Your task to perform on an android device: turn pop-ups off in chrome Image 0: 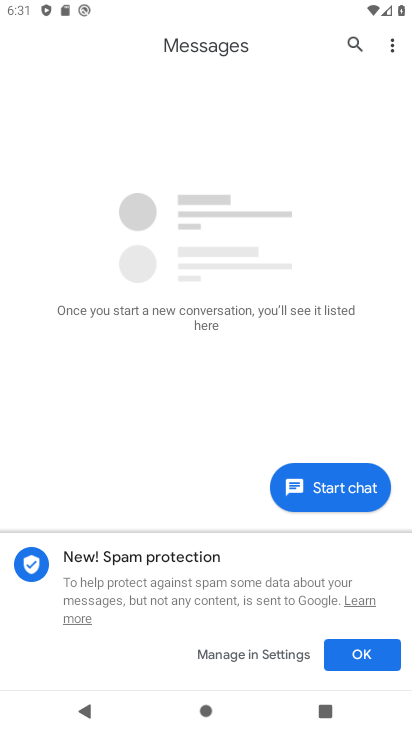
Step 0: press home button
Your task to perform on an android device: turn pop-ups off in chrome Image 1: 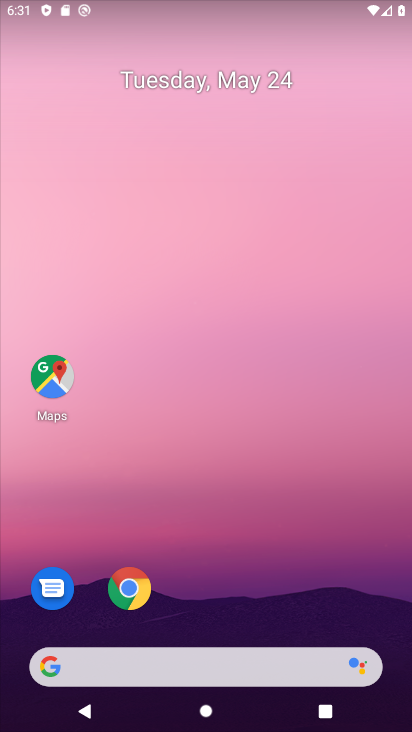
Step 1: drag from (198, 654) to (286, 3)
Your task to perform on an android device: turn pop-ups off in chrome Image 2: 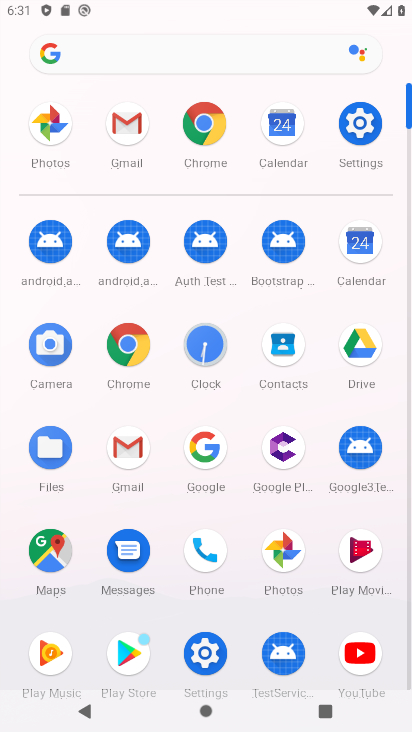
Step 2: click (134, 343)
Your task to perform on an android device: turn pop-ups off in chrome Image 3: 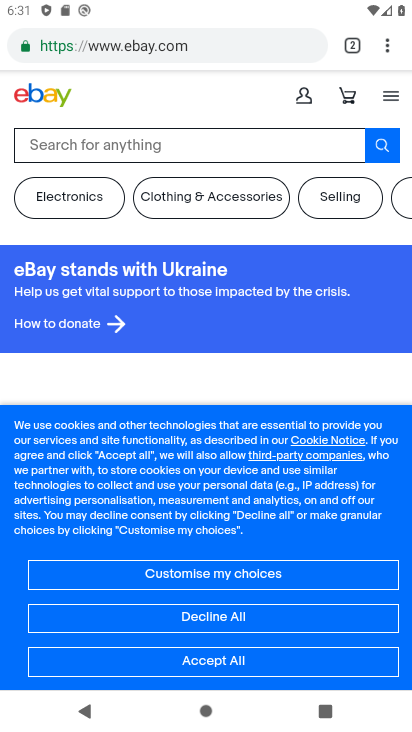
Step 3: drag from (383, 37) to (245, 549)
Your task to perform on an android device: turn pop-ups off in chrome Image 4: 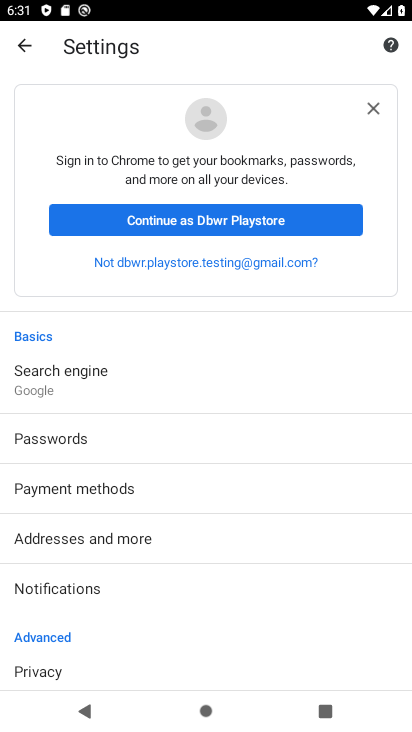
Step 4: drag from (239, 628) to (328, 21)
Your task to perform on an android device: turn pop-ups off in chrome Image 5: 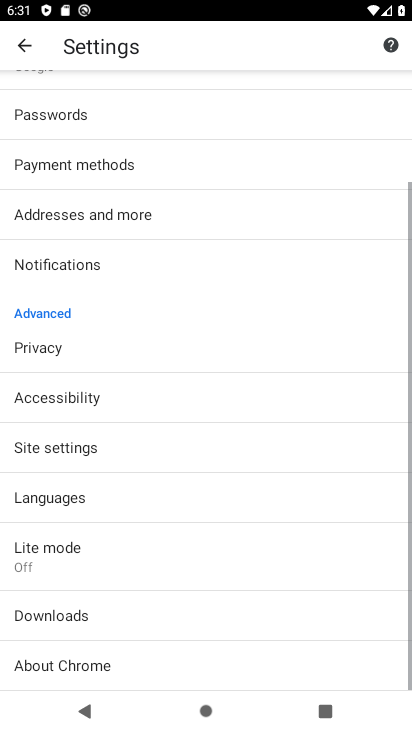
Step 5: click (112, 455)
Your task to perform on an android device: turn pop-ups off in chrome Image 6: 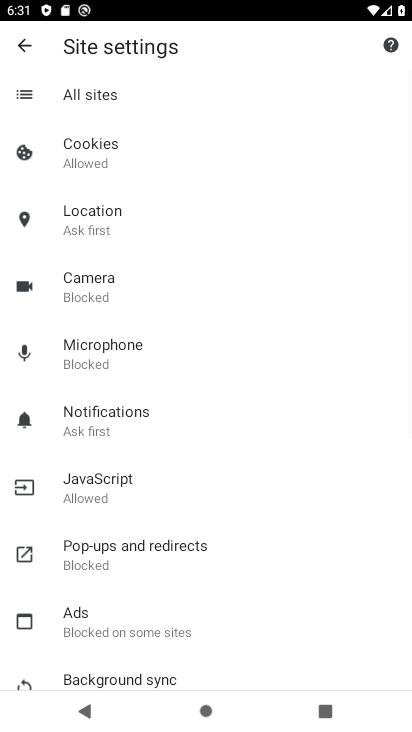
Step 6: click (132, 548)
Your task to perform on an android device: turn pop-ups off in chrome Image 7: 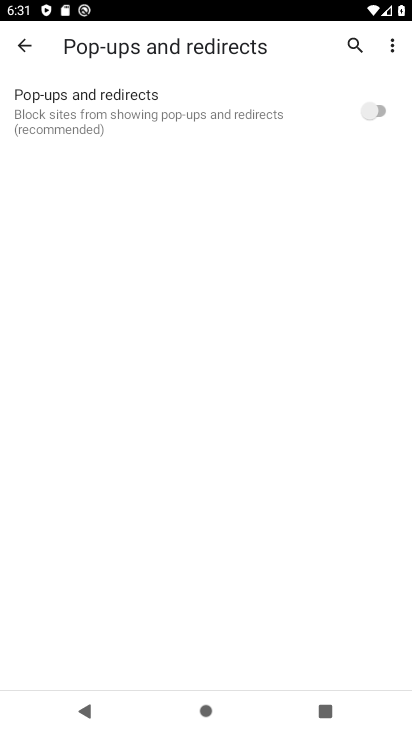
Step 7: task complete